Your task to perform on an android device: change the upload size in google photos Image 0: 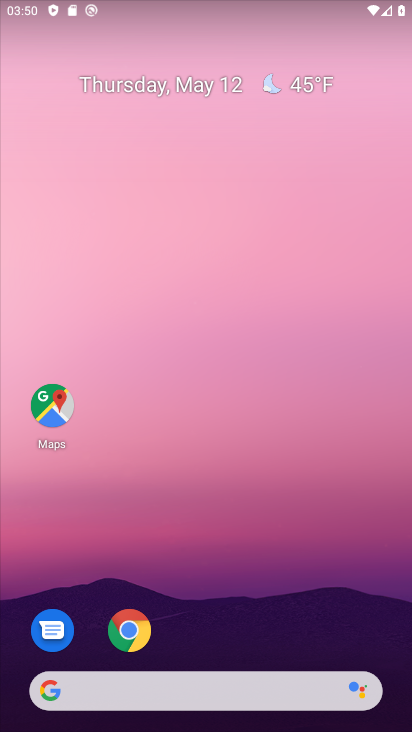
Step 0: drag from (237, 646) to (287, 63)
Your task to perform on an android device: change the upload size in google photos Image 1: 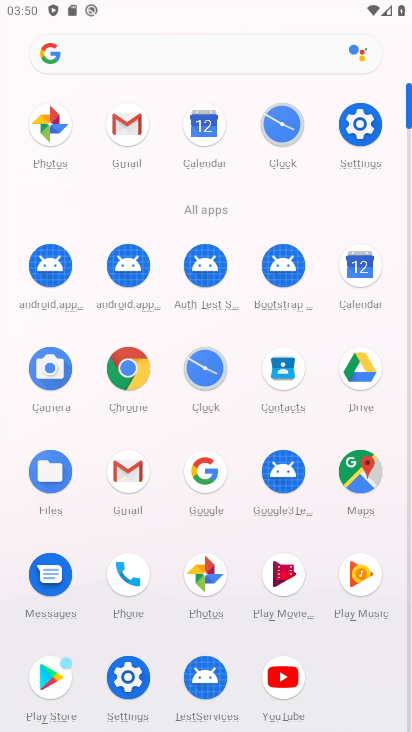
Step 1: click (127, 679)
Your task to perform on an android device: change the upload size in google photos Image 2: 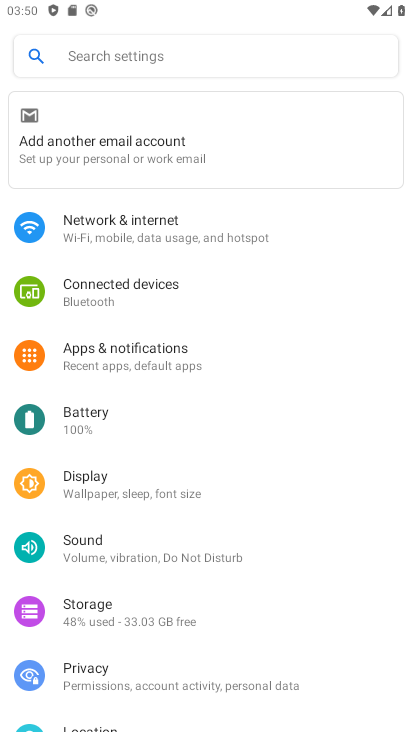
Step 2: press home button
Your task to perform on an android device: change the upload size in google photos Image 3: 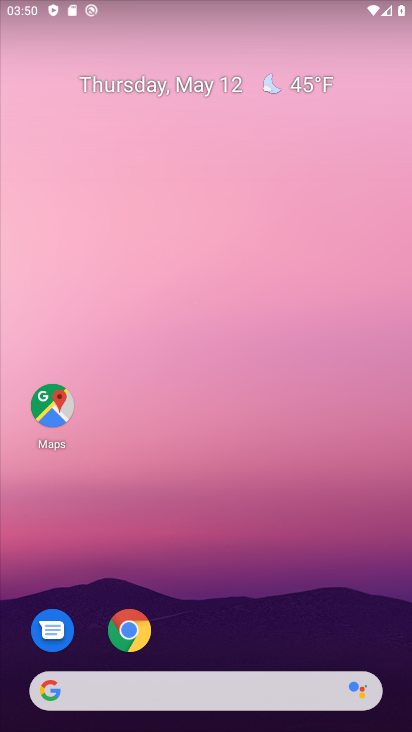
Step 3: drag from (301, 437) to (319, 12)
Your task to perform on an android device: change the upload size in google photos Image 4: 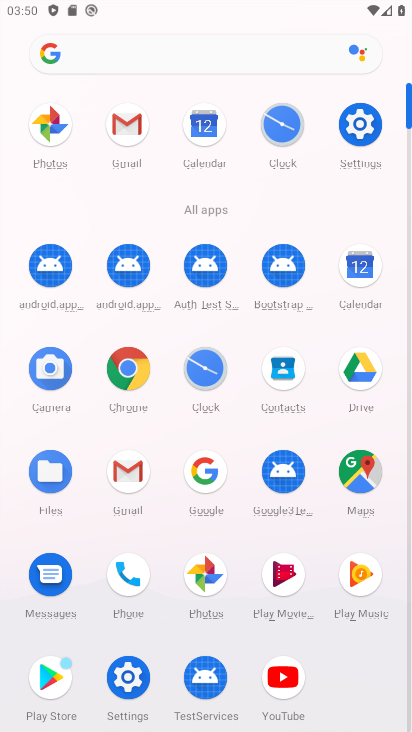
Step 4: click (214, 586)
Your task to perform on an android device: change the upload size in google photos Image 5: 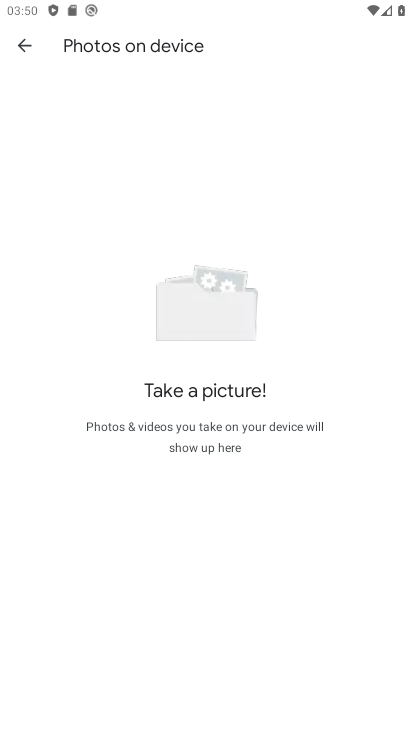
Step 5: click (27, 41)
Your task to perform on an android device: change the upload size in google photos Image 6: 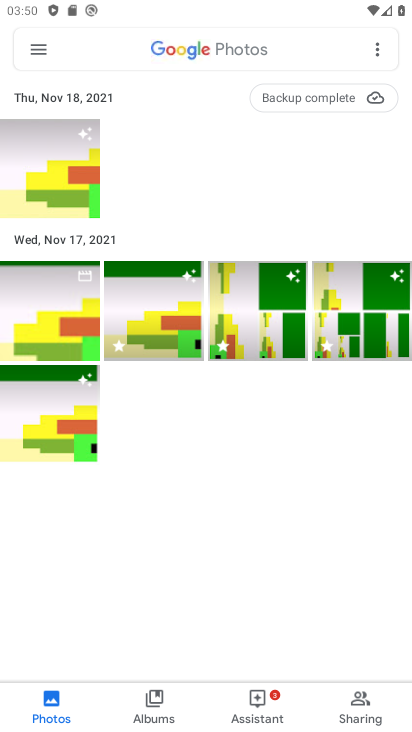
Step 6: click (36, 42)
Your task to perform on an android device: change the upload size in google photos Image 7: 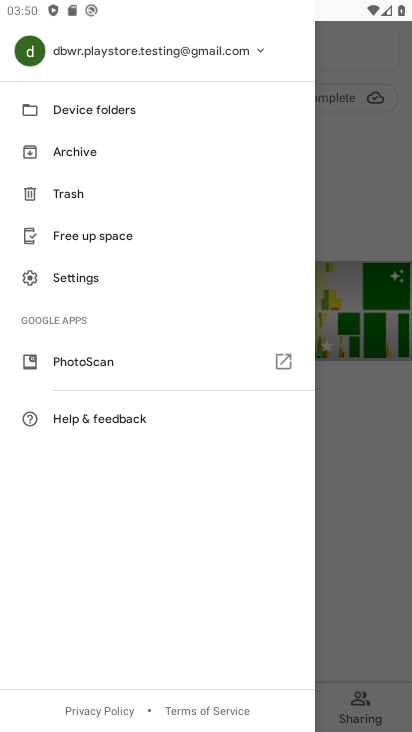
Step 7: click (65, 285)
Your task to perform on an android device: change the upload size in google photos Image 8: 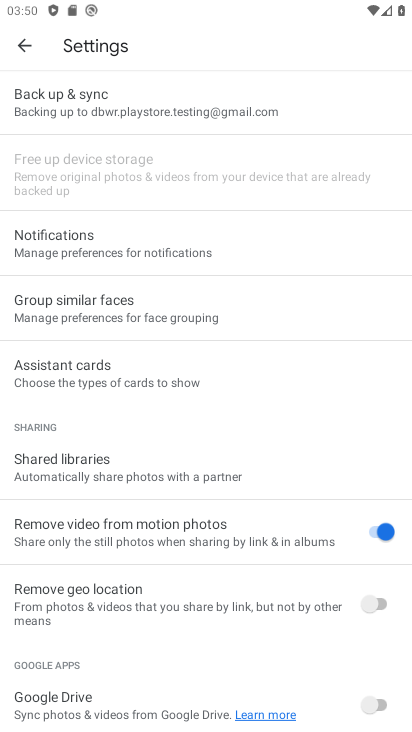
Step 8: click (131, 92)
Your task to perform on an android device: change the upload size in google photos Image 9: 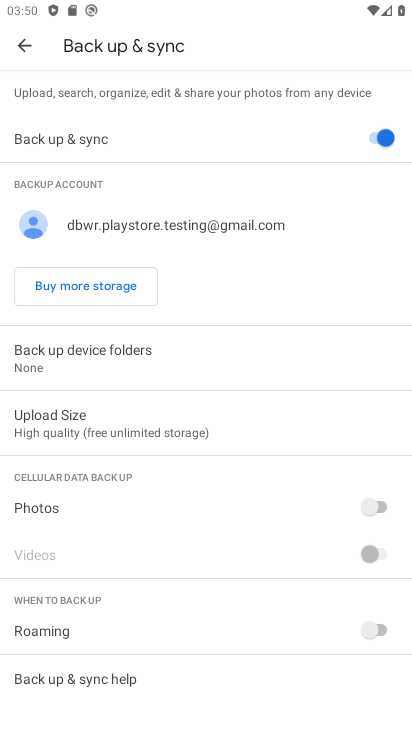
Step 9: click (194, 421)
Your task to perform on an android device: change the upload size in google photos Image 10: 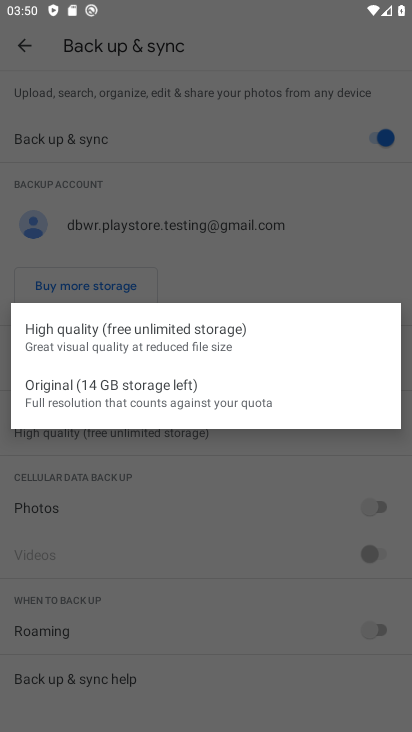
Step 10: click (152, 391)
Your task to perform on an android device: change the upload size in google photos Image 11: 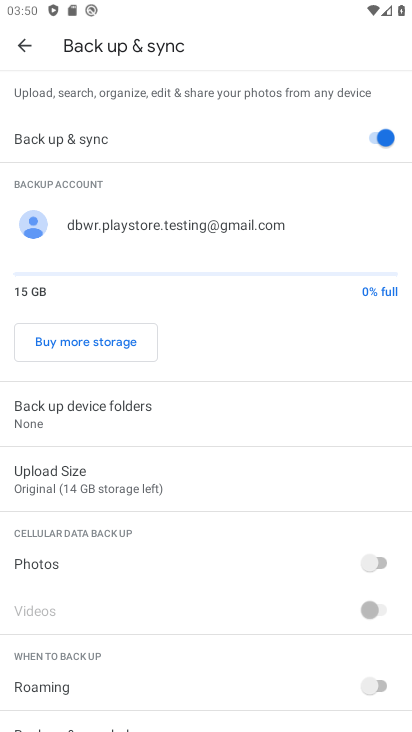
Step 11: task complete